Your task to perform on an android device: Go to calendar. Show me events next week Image 0: 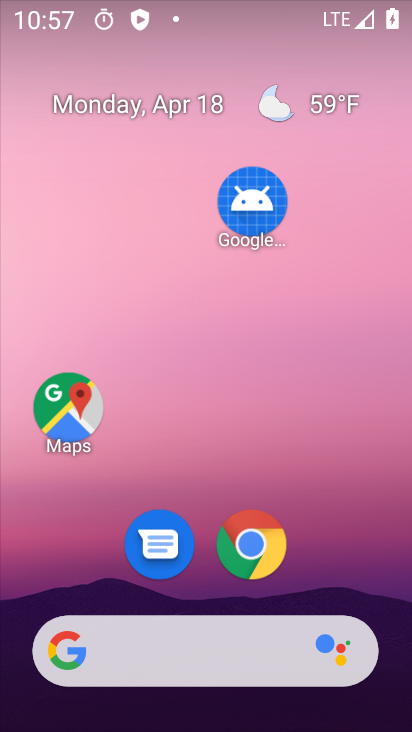
Step 0: drag from (332, 570) to (359, 208)
Your task to perform on an android device: Go to calendar. Show me events next week Image 1: 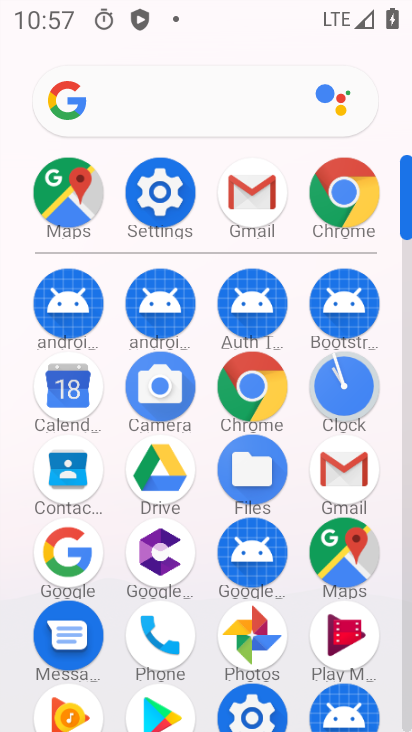
Step 1: click (64, 391)
Your task to perform on an android device: Go to calendar. Show me events next week Image 2: 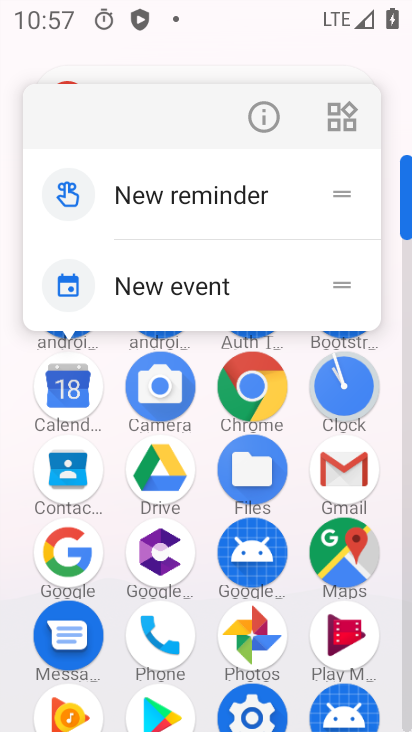
Step 2: click (72, 395)
Your task to perform on an android device: Go to calendar. Show me events next week Image 3: 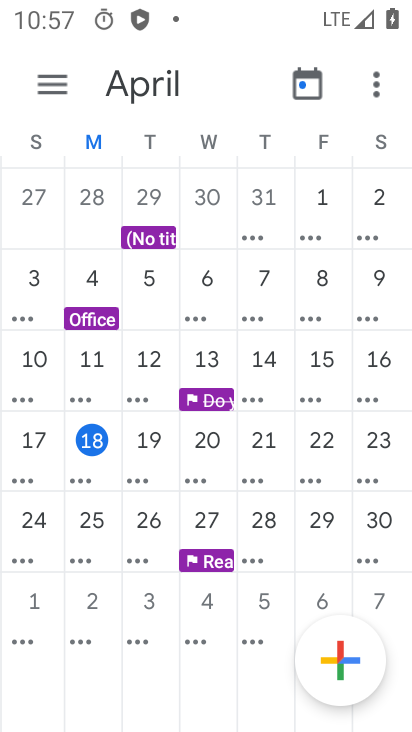
Step 3: click (78, 387)
Your task to perform on an android device: Go to calendar. Show me events next week Image 4: 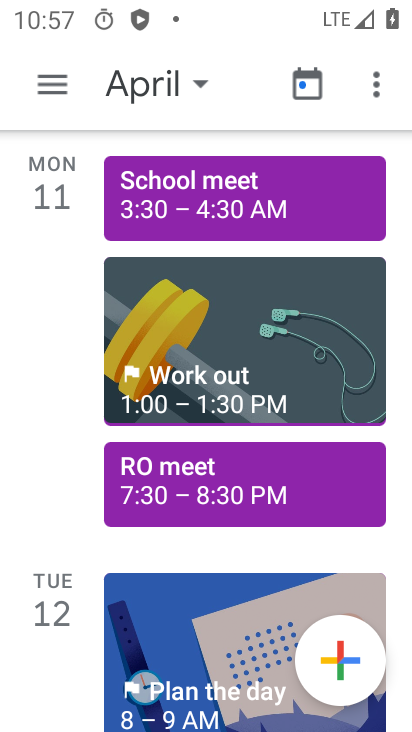
Step 4: click (72, 80)
Your task to perform on an android device: Go to calendar. Show me events next week Image 5: 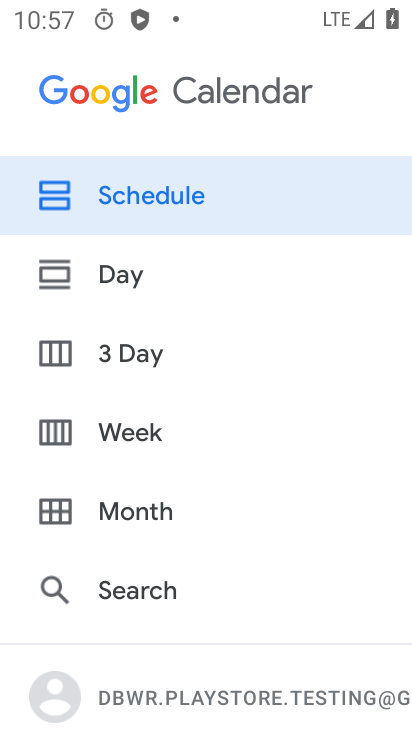
Step 5: click (126, 508)
Your task to perform on an android device: Go to calendar. Show me events next week Image 6: 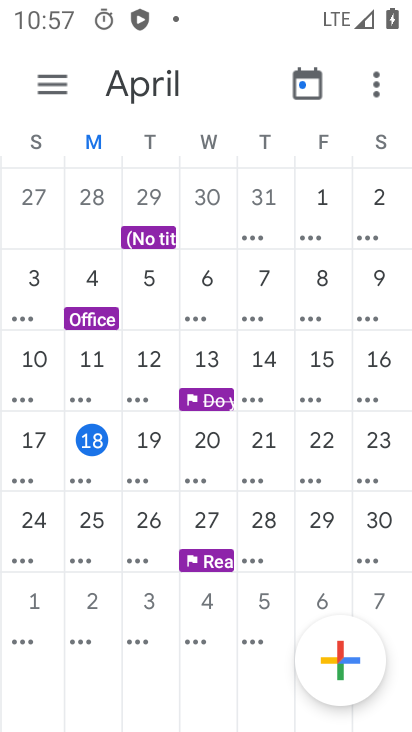
Step 6: click (207, 549)
Your task to perform on an android device: Go to calendar. Show me events next week Image 7: 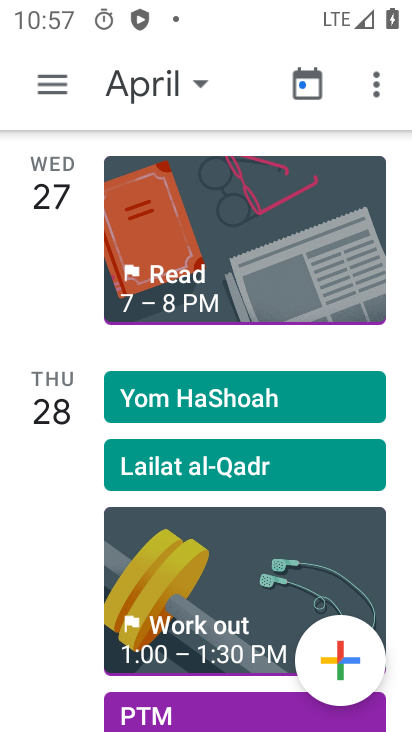
Step 7: click (206, 556)
Your task to perform on an android device: Go to calendar. Show me events next week Image 8: 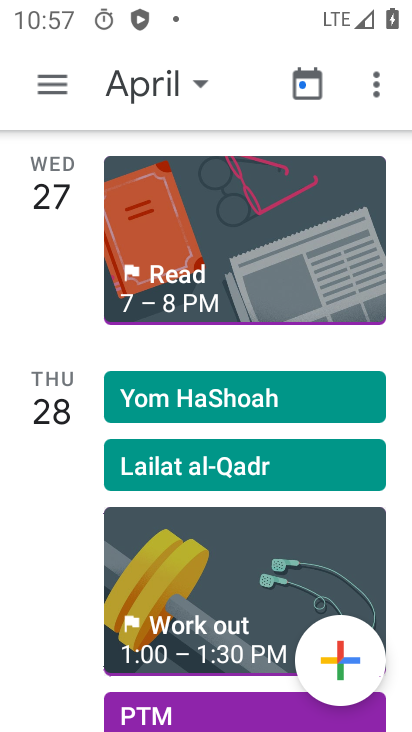
Step 8: task complete